Your task to perform on an android device: turn notification dots off Image 0: 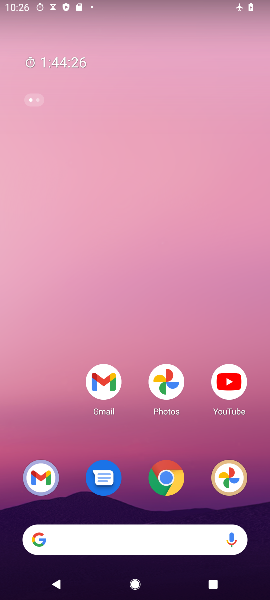
Step 0: drag from (198, 496) to (215, 86)
Your task to perform on an android device: turn notification dots off Image 1: 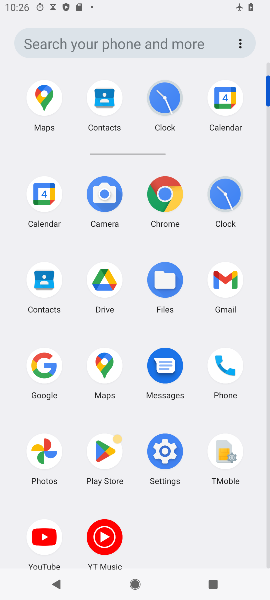
Step 1: click (167, 453)
Your task to perform on an android device: turn notification dots off Image 2: 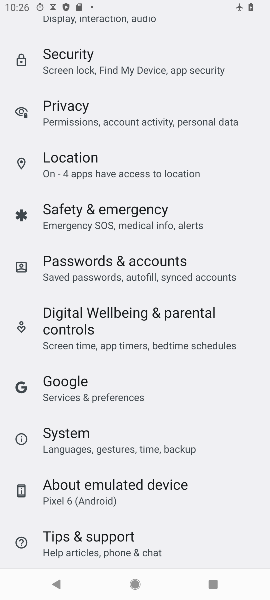
Step 2: drag from (175, 540) to (169, 139)
Your task to perform on an android device: turn notification dots off Image 3: 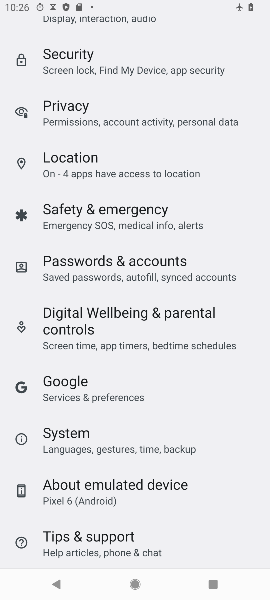
Step 3: drag from (177, 119) to (164, 460)
Your task to perform on an android device: turn notification dots off Image 4: 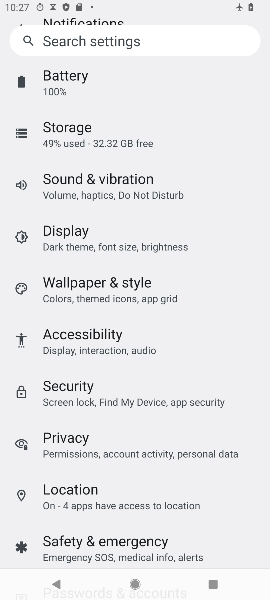
Step 4: drag from (120, 102) to (156, 474)
Your task to perform on an android device: turn notification dots off Image 5: 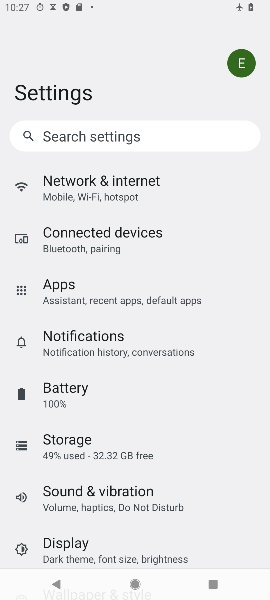
Step 5: click (94, 335)
Your task to perform on an android device: turn notification dots off Image 6: 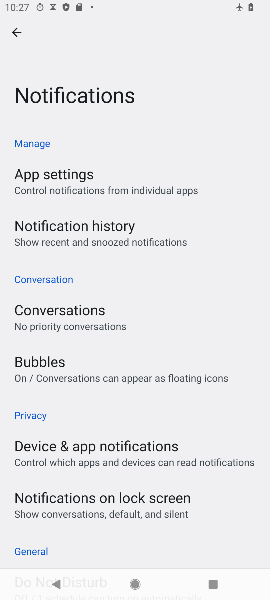
Step 6: task complete